Your task to perform on an android device: install app "The Home Depot" Image 0: 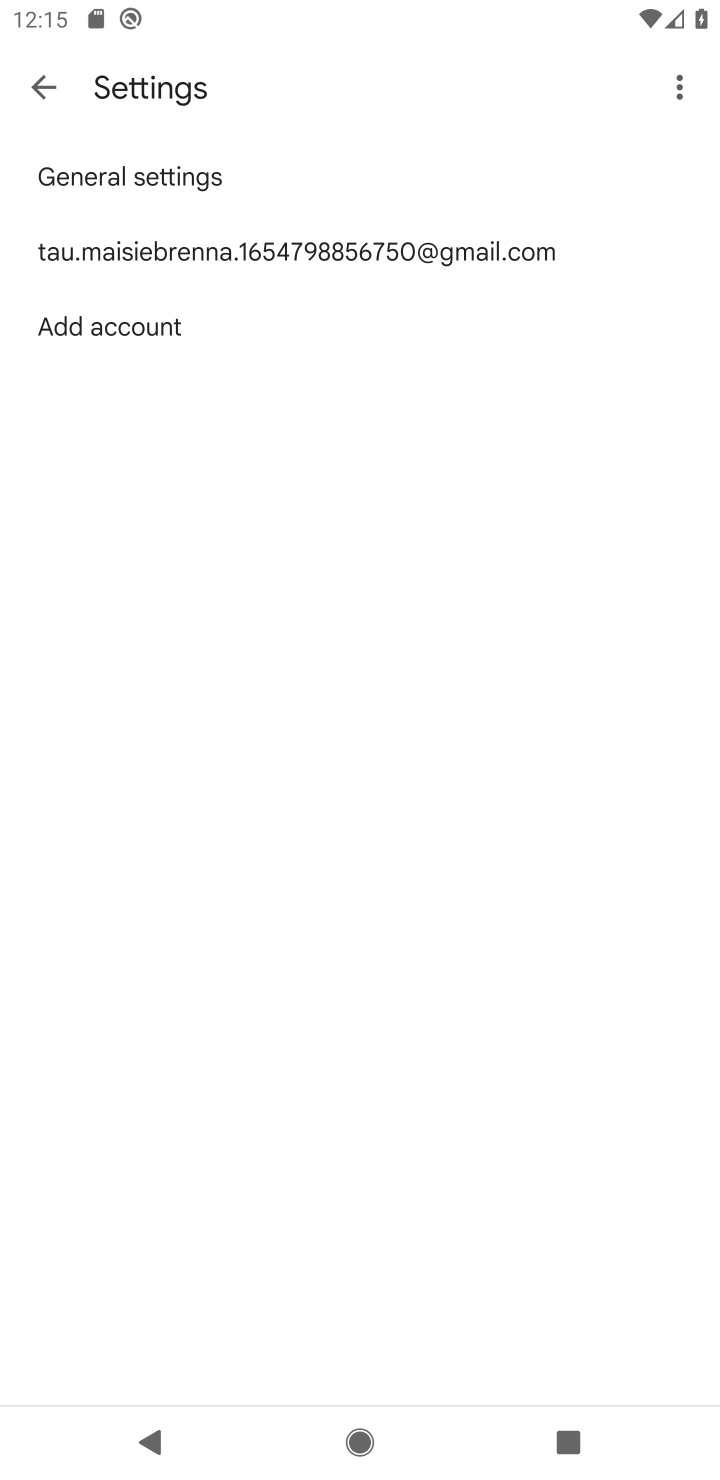
Step 0: press home button
Your task to perform on an android device: install app "The Home Depot" Image 1: 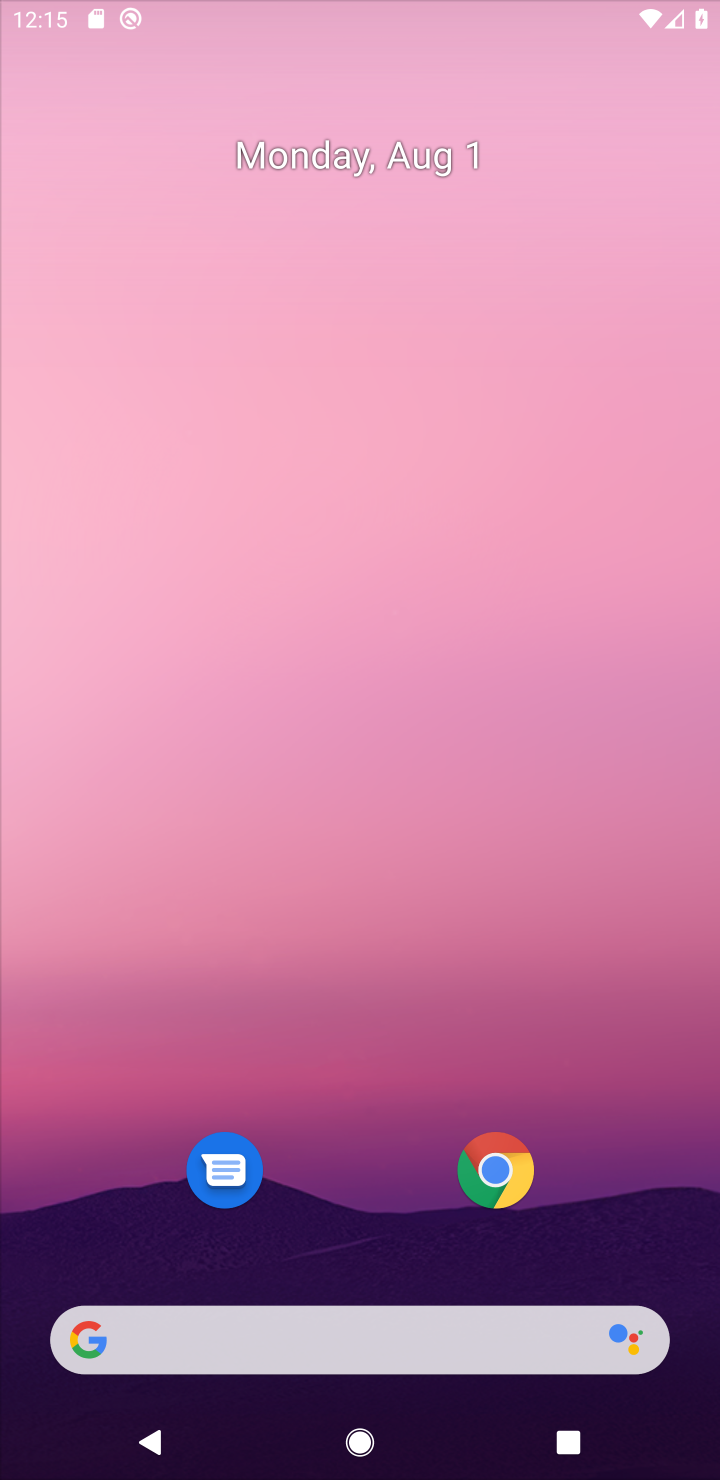
Step 1: drag from (639, 1185) to (306, 88)
Your task to perform on an android device: install app "The Home Depot" Image 2: 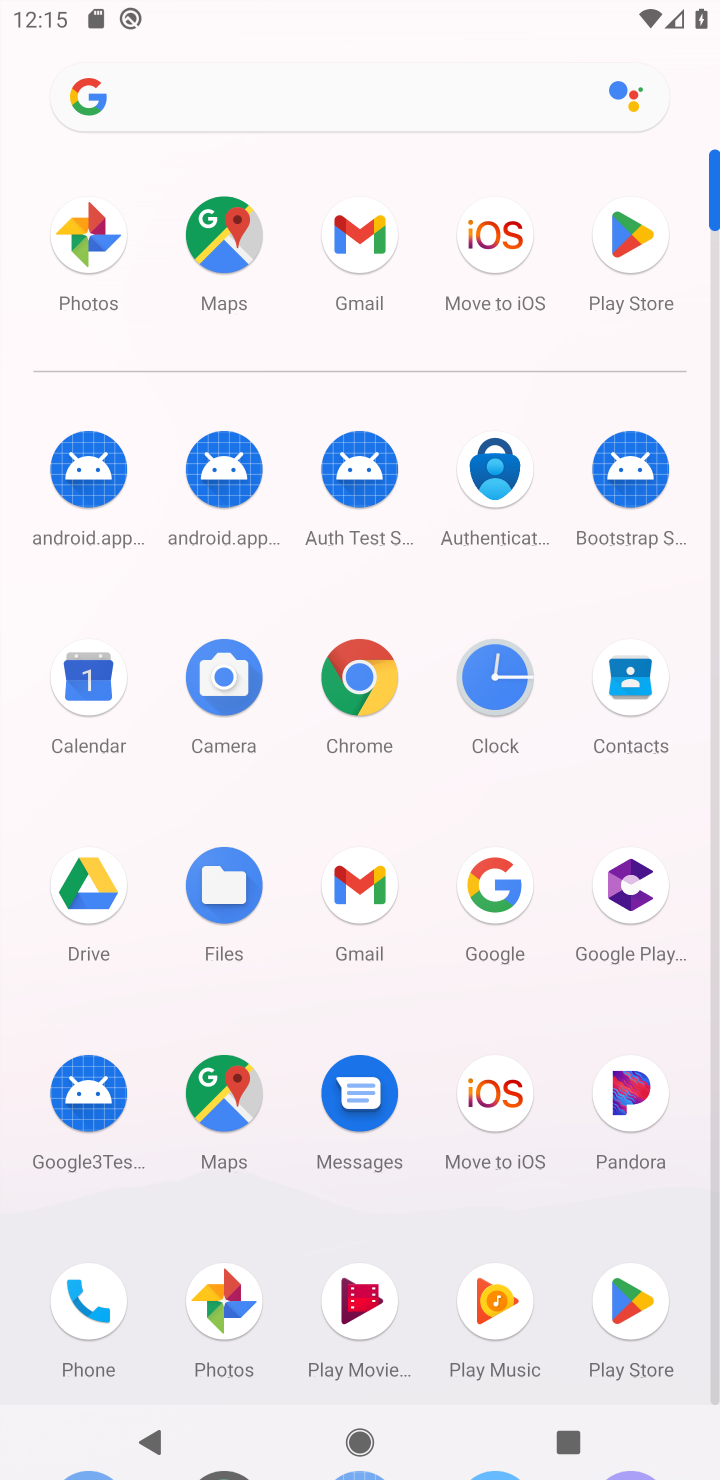
Step 2: click (619, 221)
Your task to perform on an android device: install app "The Home Depot" Image 3: 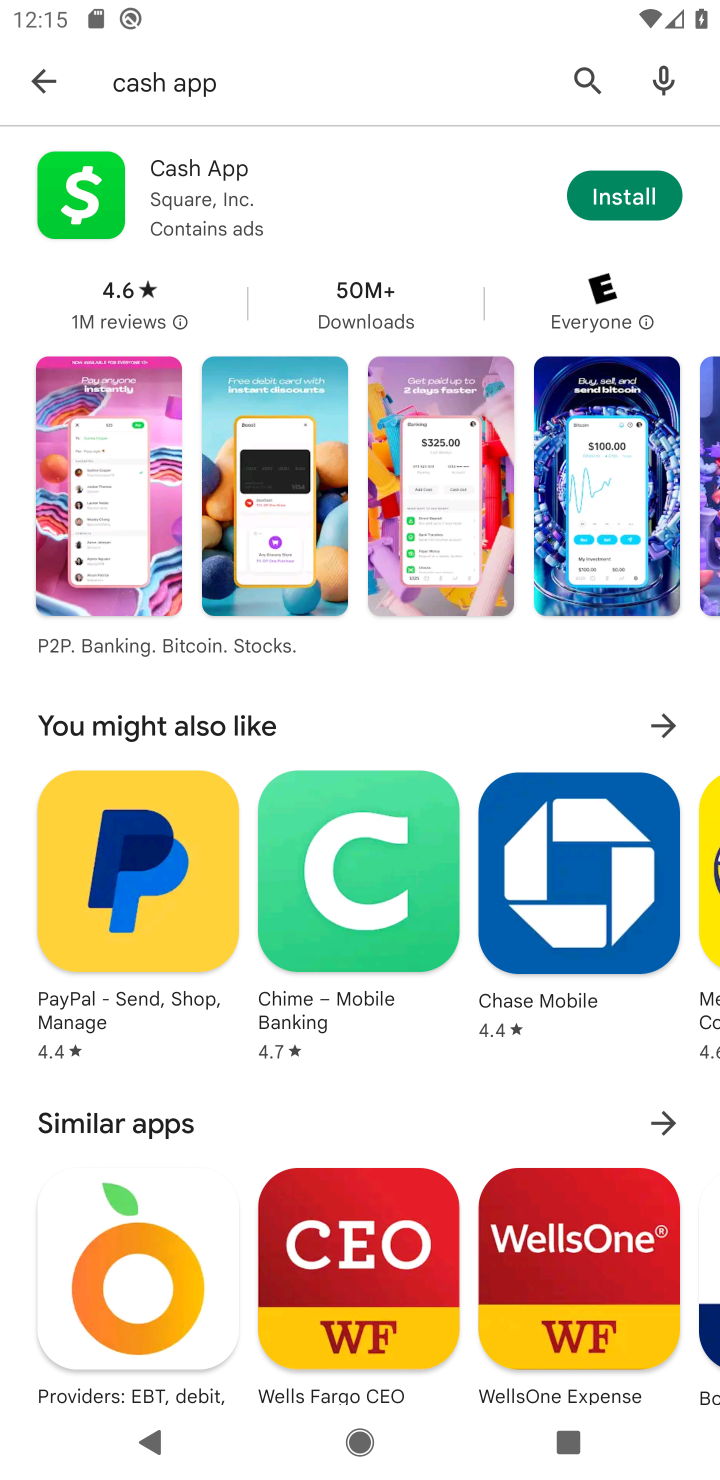
Step 3: press back button
Your task to perform on an android device: install app "The Home Depot" Image 4: 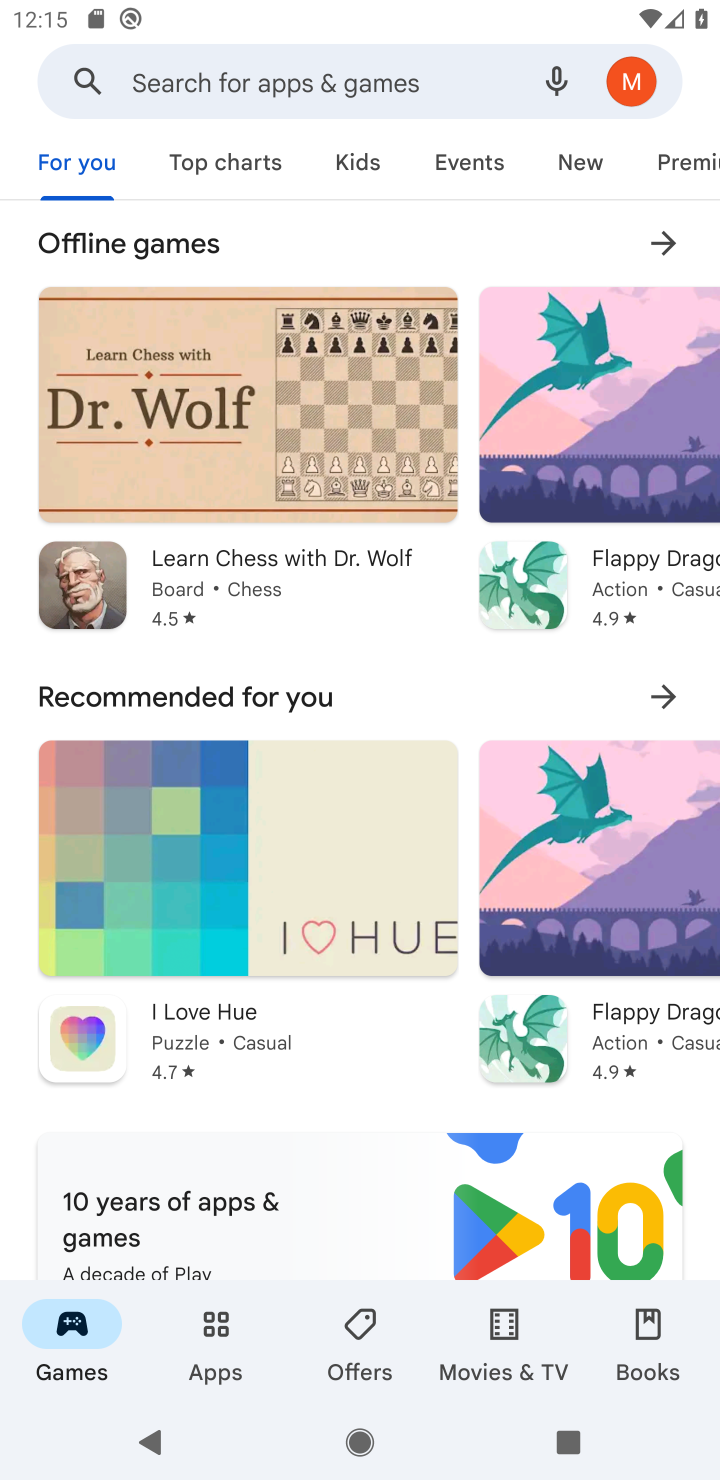
Step 4: click (186, 100)
Your task to perform on an android device: install app "The Home Depot" Image 5: 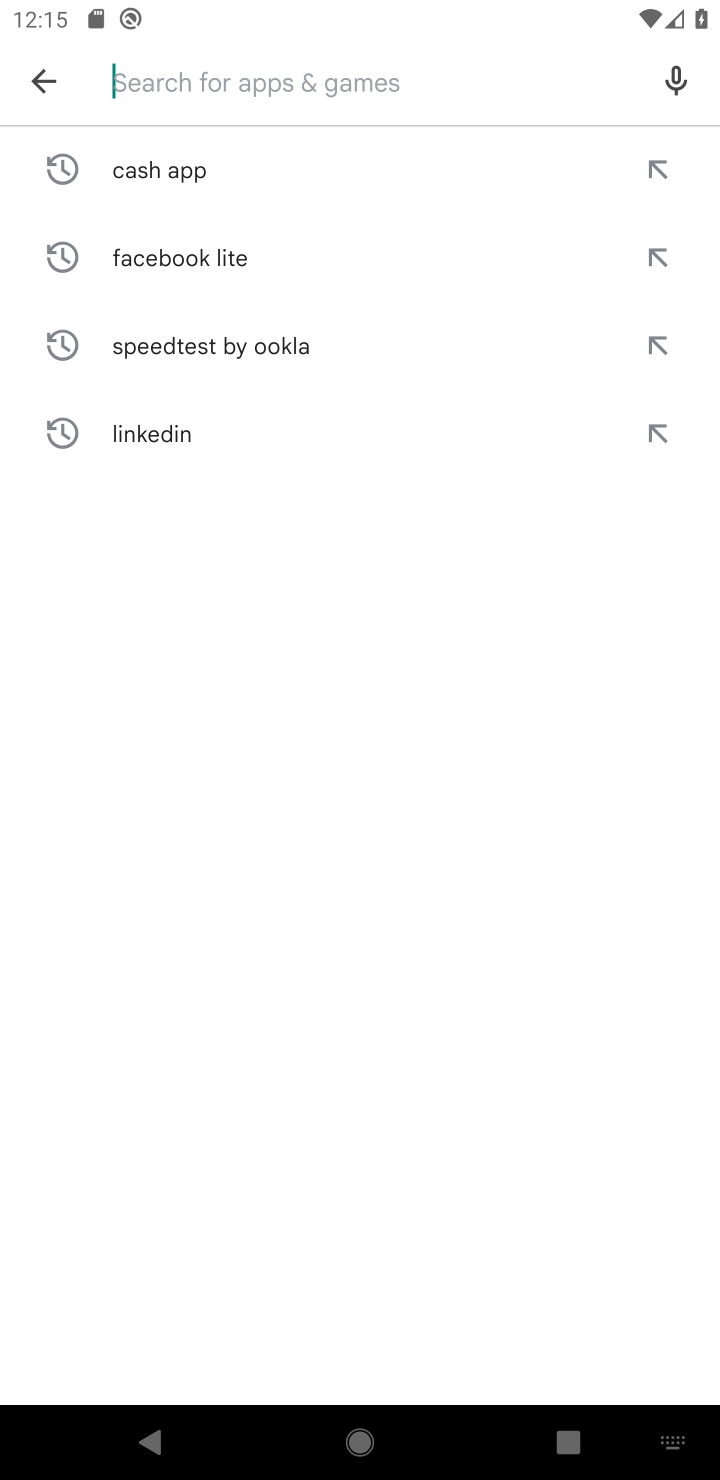
Step 5: type "The Home Depot"
Your task to perform on an android device: install app "The Home Depot" Image 6: 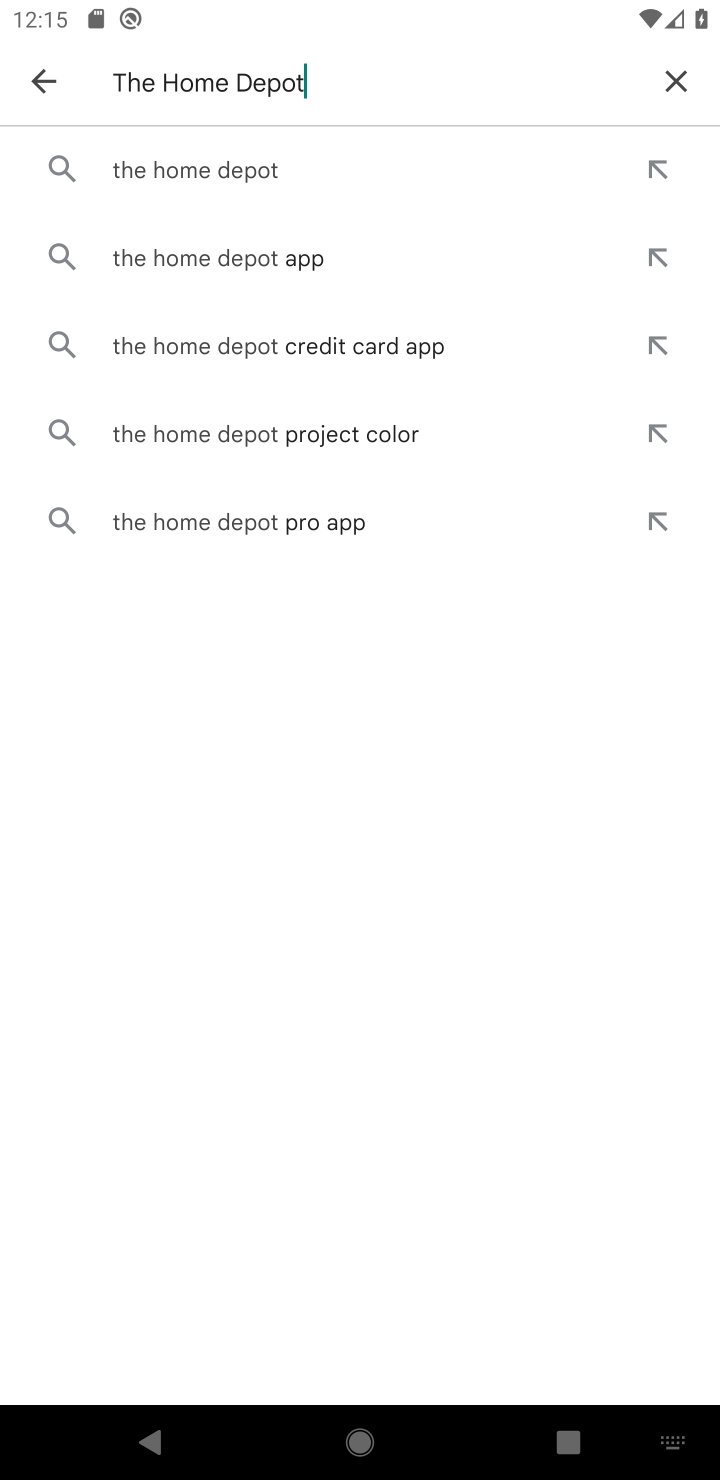
Step 6: click (194, 167)
Your task to perform on an android device: install app "The Home Depot" Image 7: 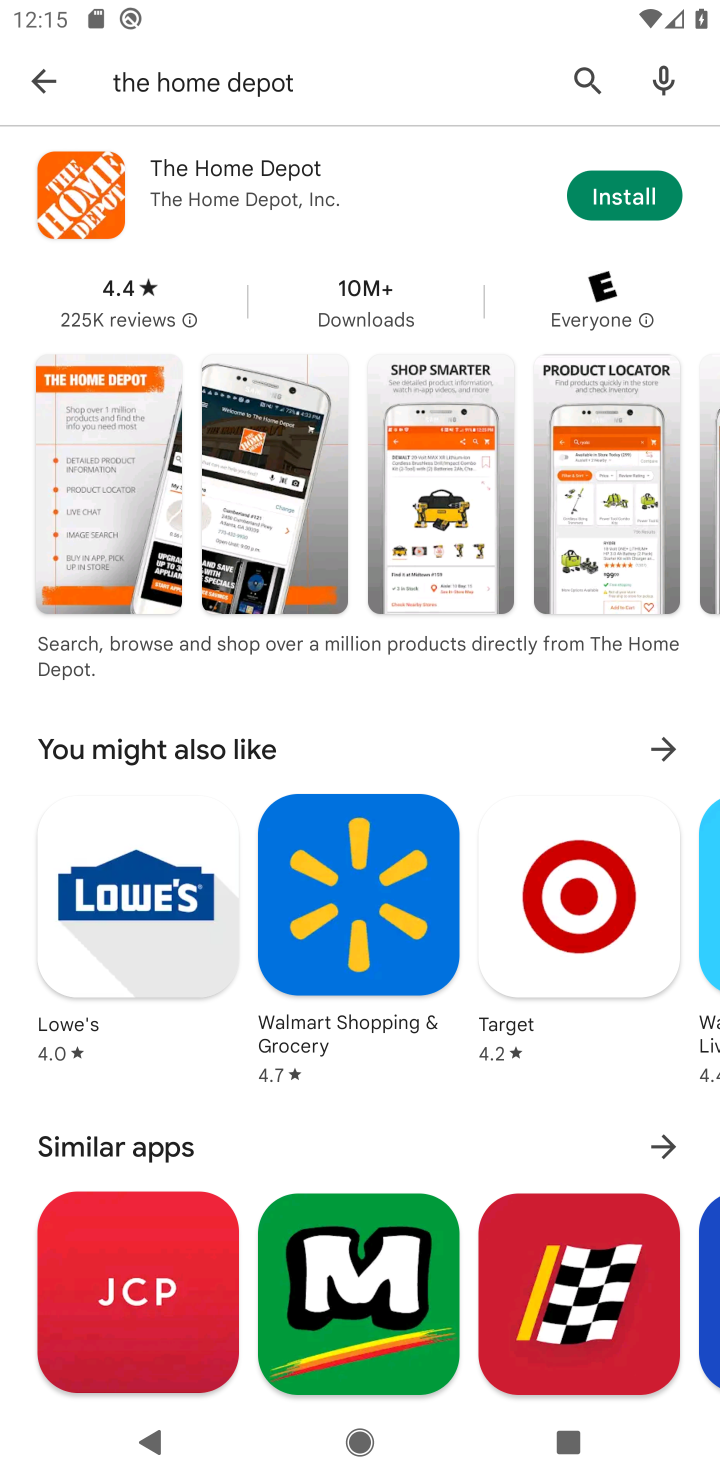
Step 7: click (632, 176)
Your task to perform on an android device: install app "The Home Depot" Image 8: 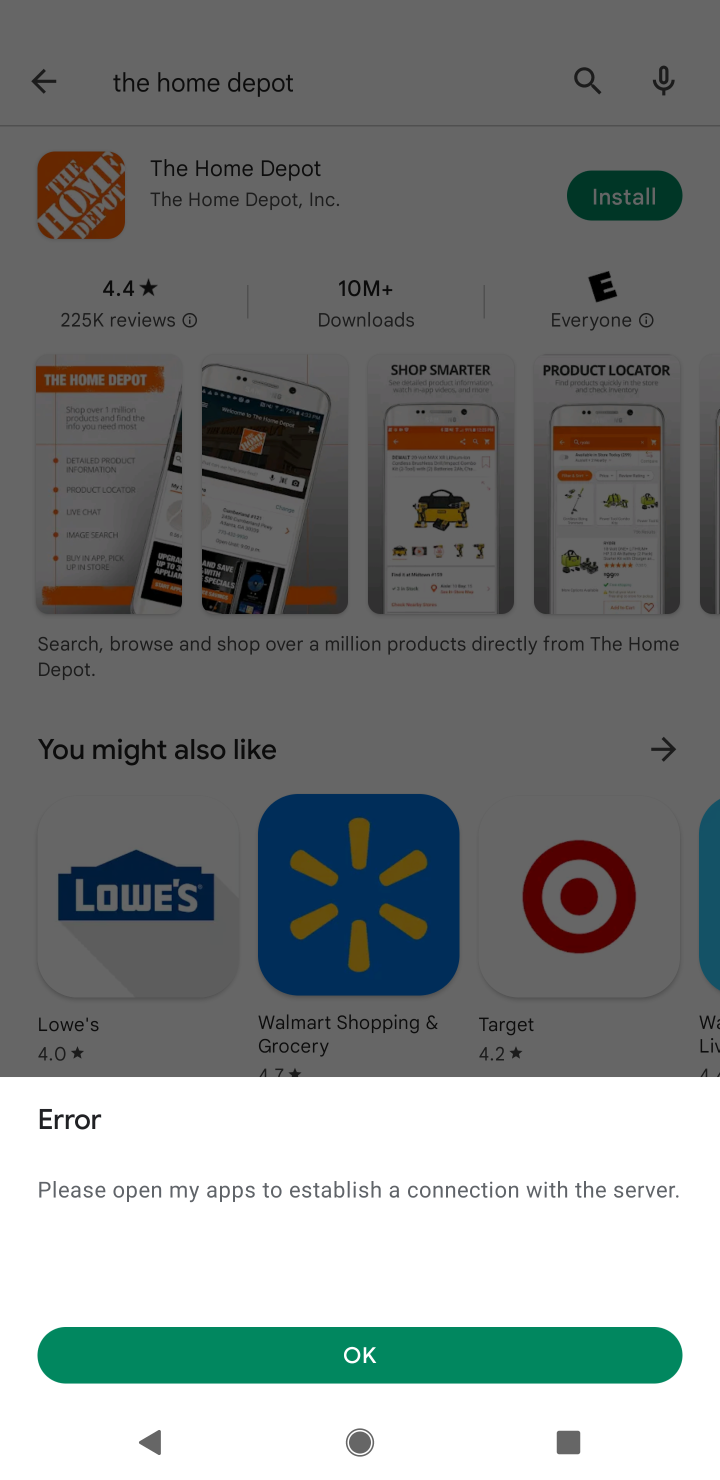
Step 8: task complete